Your task to perform on an android device: turn off airplane mode Image 0: 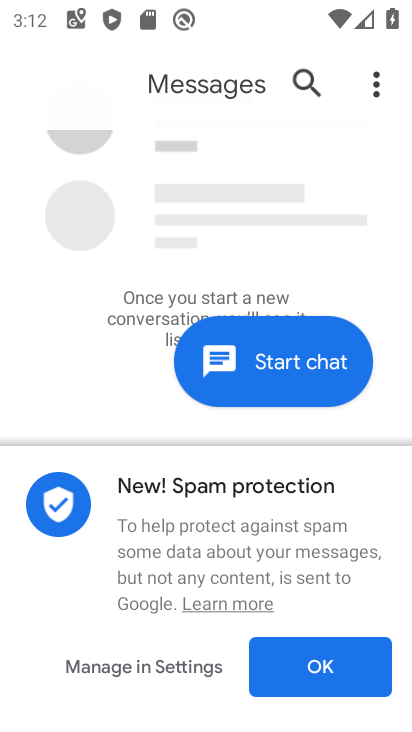
Step 0: press home button
Your task to perform on an android device: turn off airplane mode Image 1: 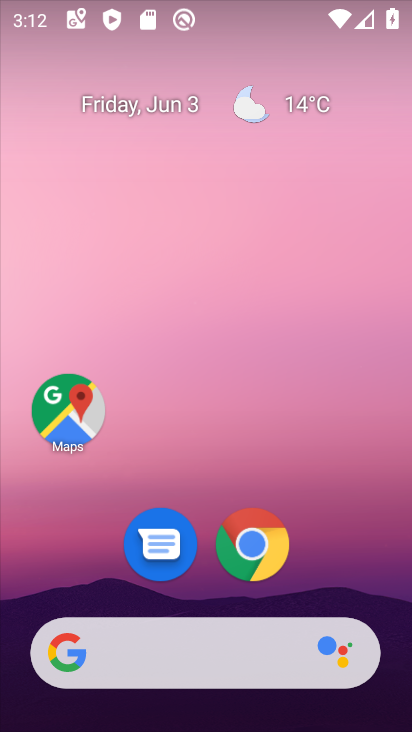
Step 1: drag from (395, 612) to (355, 31)
Your task to perform on an android device: turn off airplane mode Image 2: 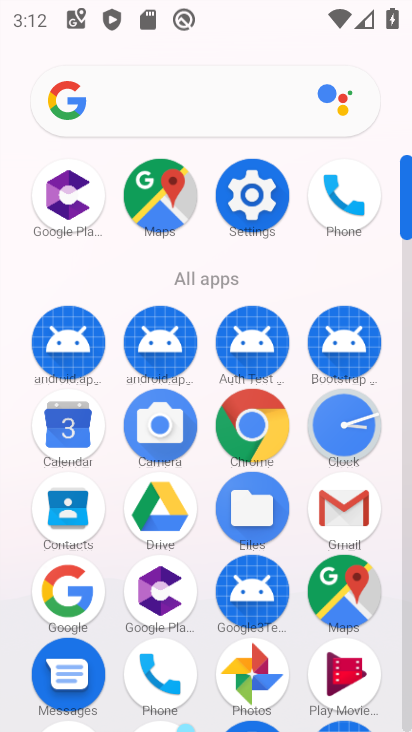
Step 2: click (403, 605)
Your task to perform on an android device: turn off airplane mode Image 3: 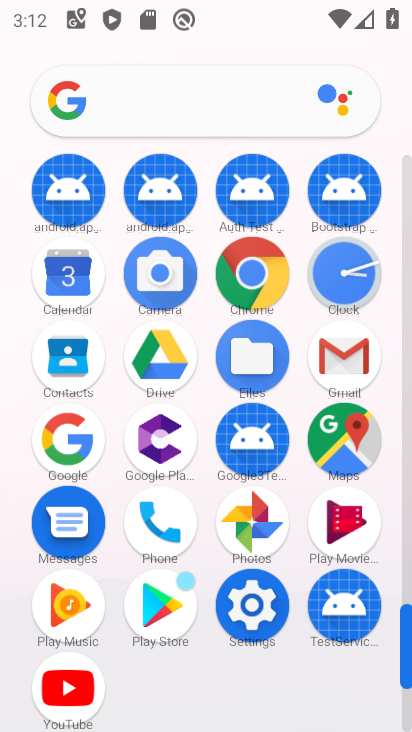
Step 3: click (255, 605)
Your task to perform on an android device: turn off airplane mode Image 4: 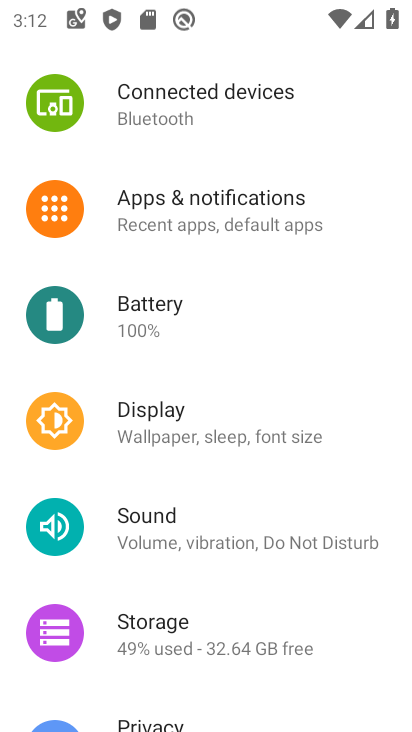
Step 4: drag from (352, 203) to (331, 373)
Your task to perform on an android device: turn off airplane mode Image 5: 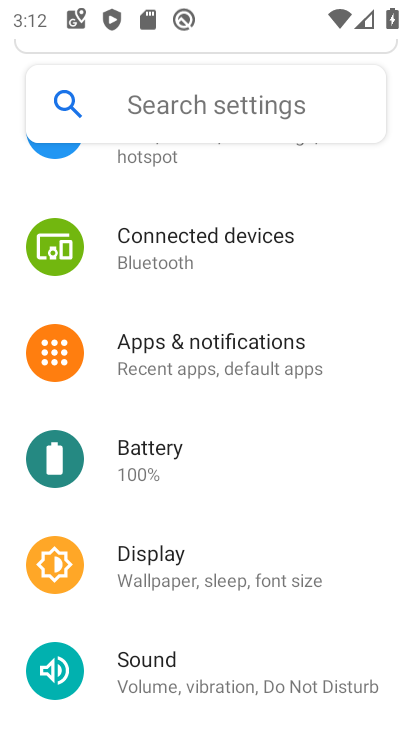
Step 5: drag from (261, 215) to (274, 381)
Your task to perform on an android device: turn off airplane mode Image 6: 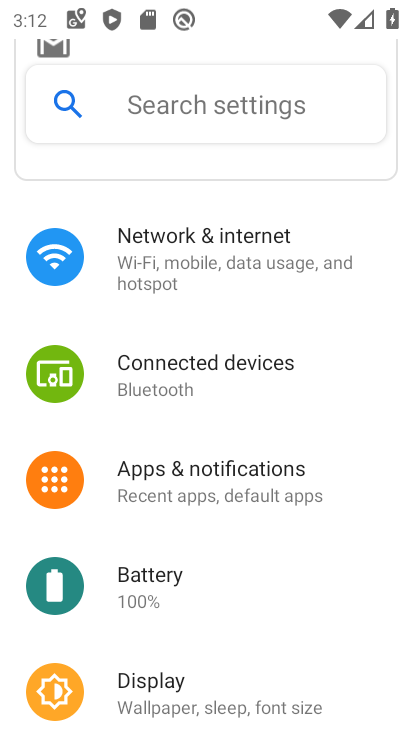
Step 6: click (173, 230)
Your task to perform on an android device: turn off airplane mode Image 7: 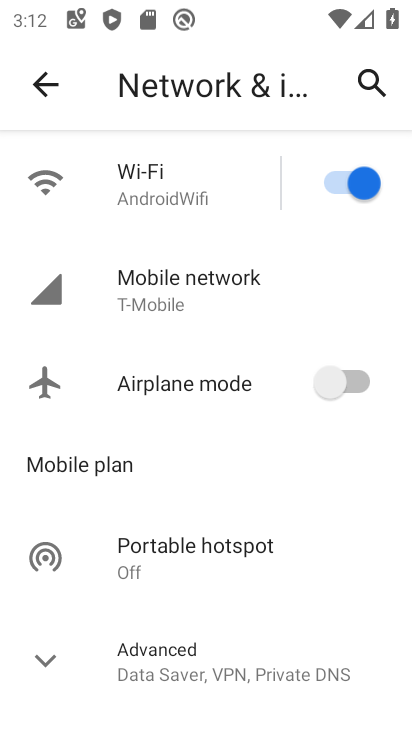
Step 7: task complete